Your task to perform on an android device: turn off javascript in the chrome app Image 0: 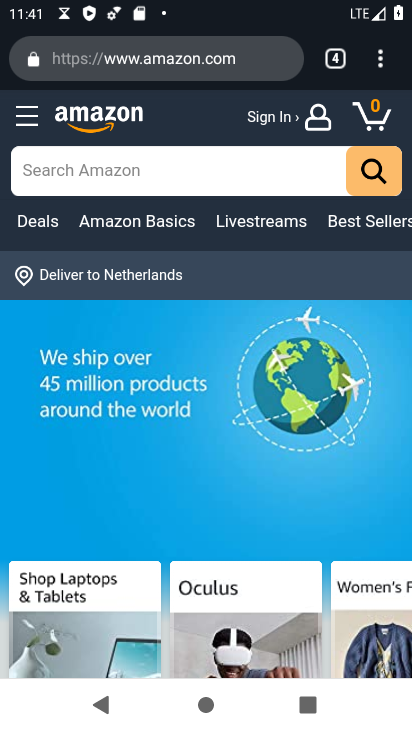
Step 0: press home button
Your task to perform on an android device: turn off javascript in the chrome app Image 1: 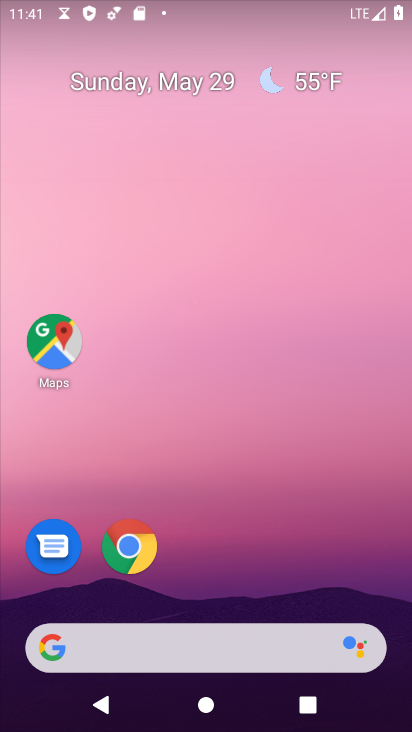
Step 1: click (126, 547)
Your task to perform on an android device: turn off javascript in the chrome app Image 2: 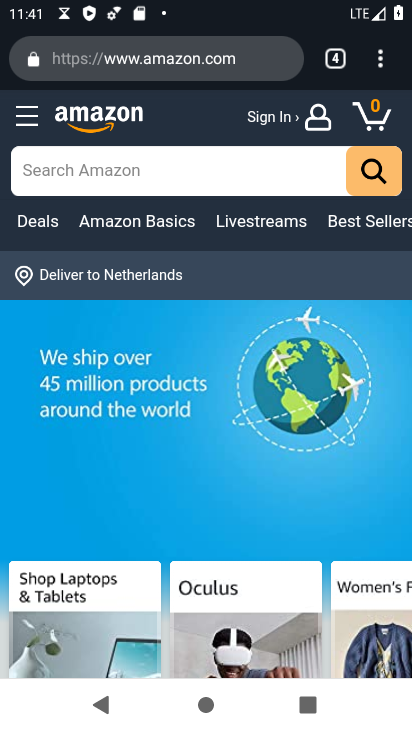
Step 2: drag from (378, 52) to (235, 567)
Your task to perform on an android device: turn off javascript in the chrome app Image 3: 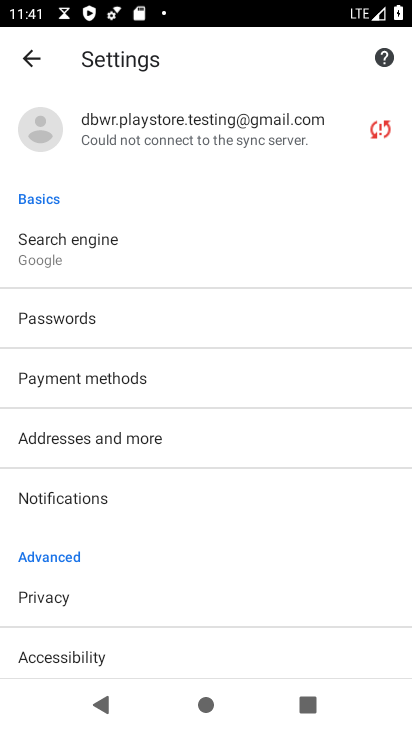
Step 3: drag from (164, 602) to (300, 220)
Your task to perform on an android device: turn off javascript in the chrome app Image 4: 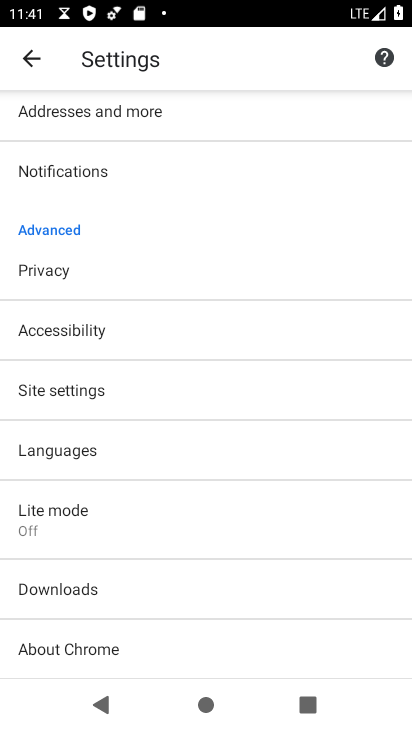
Step 4: click (95, 393)
Your task to perform on an android device: turn off javascript in the chrome app Image 5: 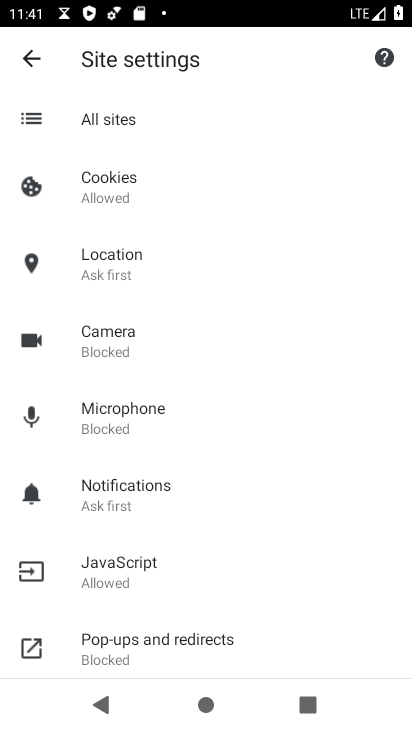
Step 5: click (121, 572)
Your task to perform on an android device: turn off javascript in the chrome app Image 6: 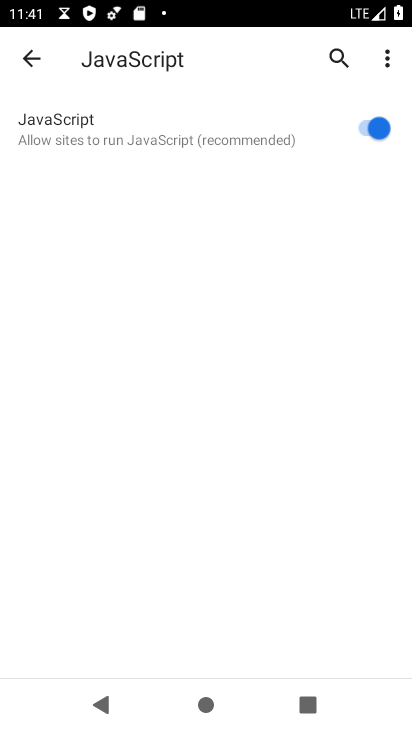
Step 6: click (366, 131)
Your task to perform on an android device: turn off javascript in the chrome app Image 7: 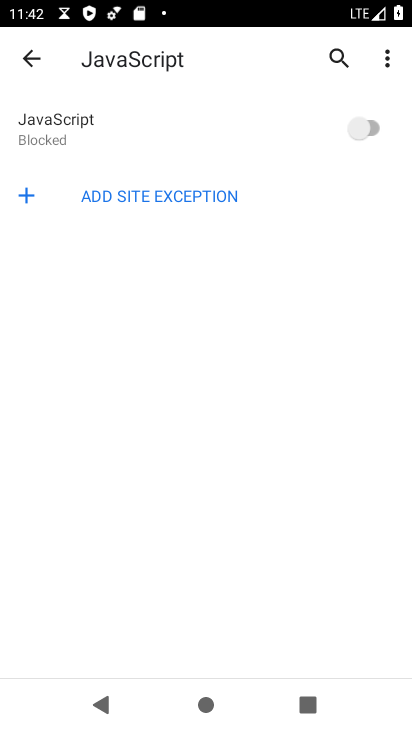
Step 7: task complete